Your task to perform on an android device: open a bookmark in the chrome app Image 0: 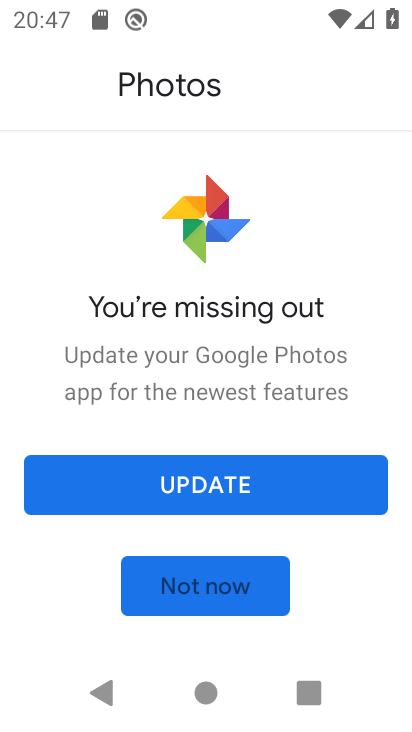
Step 0: press home button
Your task to perform on an android device: open a bookmark in the chrome app Image 1: 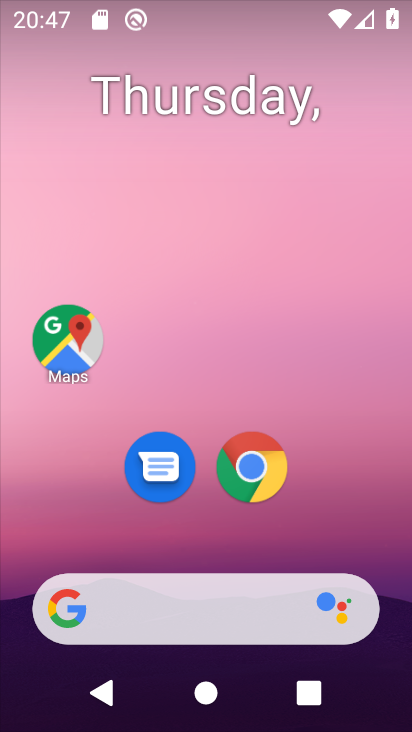
Step 1: drag from (362, 526) to (350, 252)
Your task to perform on an android device: open a bookmark in the chrome app Image 2: 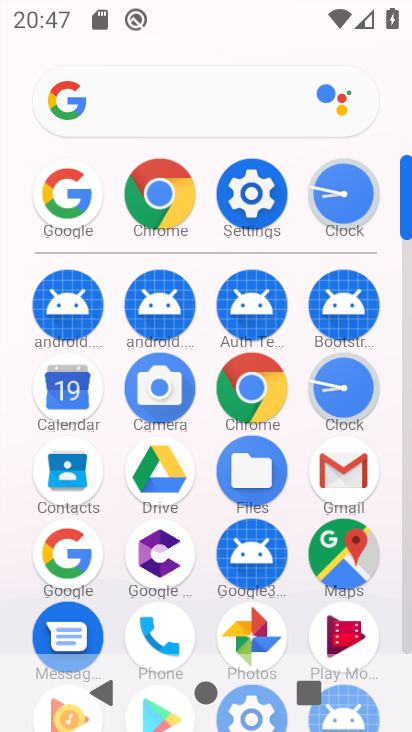
Step 2: click (259, 397)
Your task to perform on an android device: open a bookmark in the chrome app Image 3: 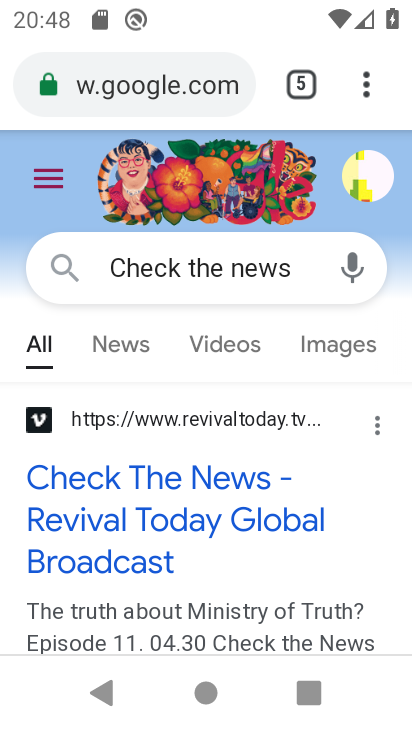
Step 3: click (372, 82)
Your task to perform on an android device: open a bookmark in the chrome app Image 4: 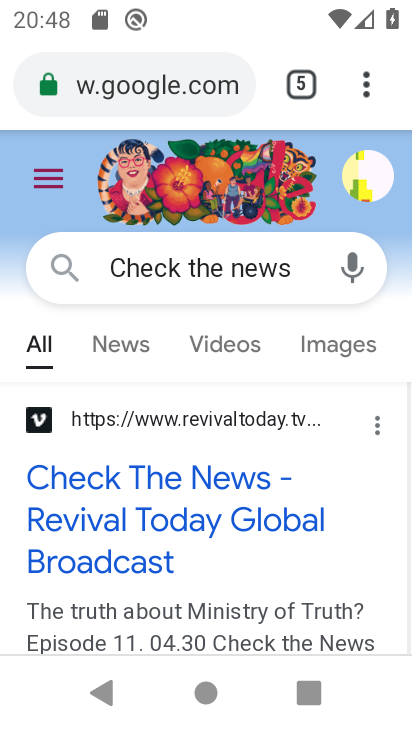
Step 4: click (381, 48)
Your task to perform on an android device: open a bookmark in the chrome app Image 5: 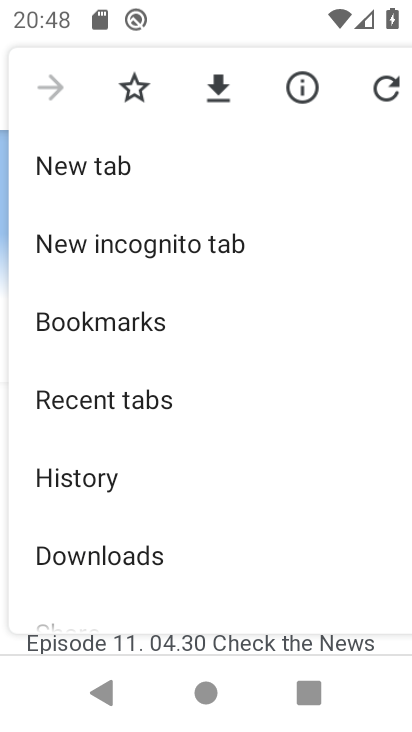
Step 5: click (168, 325)
Your task to perform on an android device: open a bookmark in the chrome app Image 6: 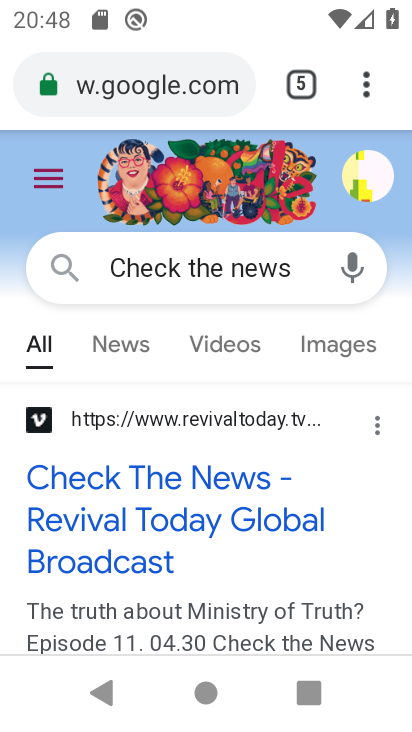
Step 6: click (168, 325)
Your task to perform on an android device: open a bookmark in the chrome app Image 7: 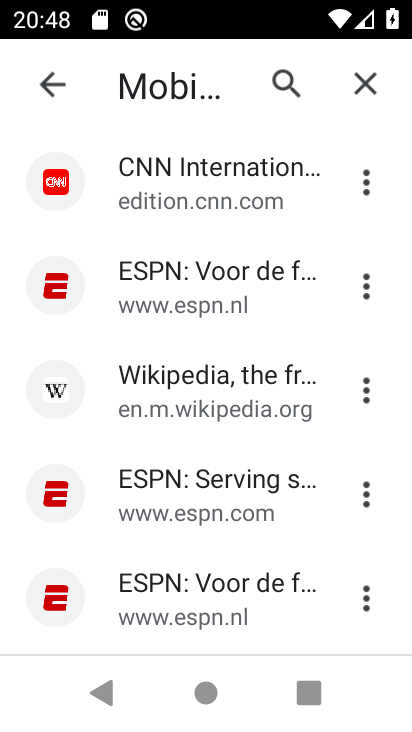
Step 7: task complete